Your task to perform on an android device: create a new album in the google photos Image 0: 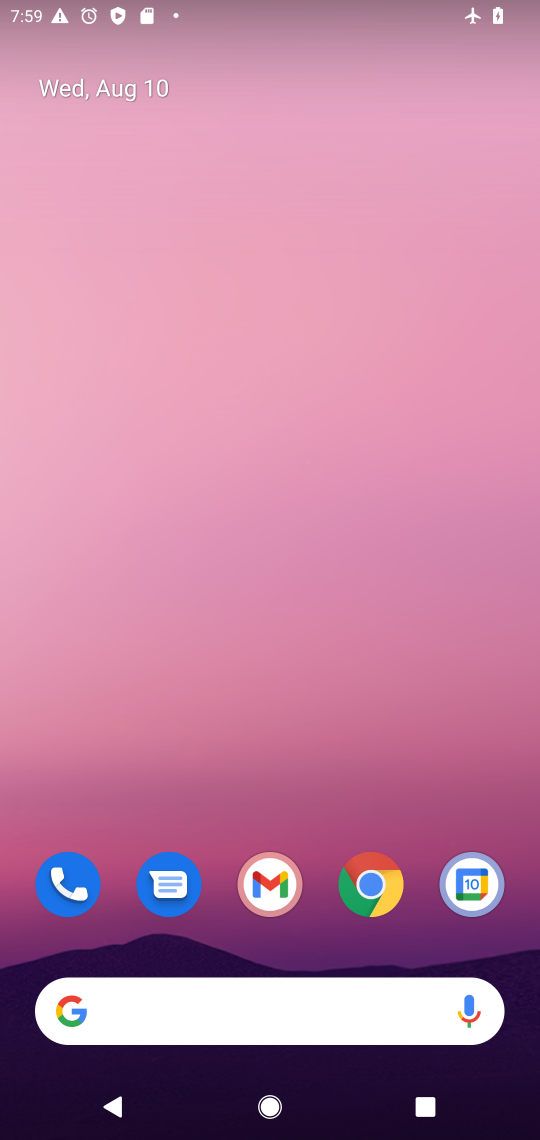
Step 0: drag from (43, 1051) to (246, 341)
Your task to perform on an android device: create a new album in the google photos Image 1: 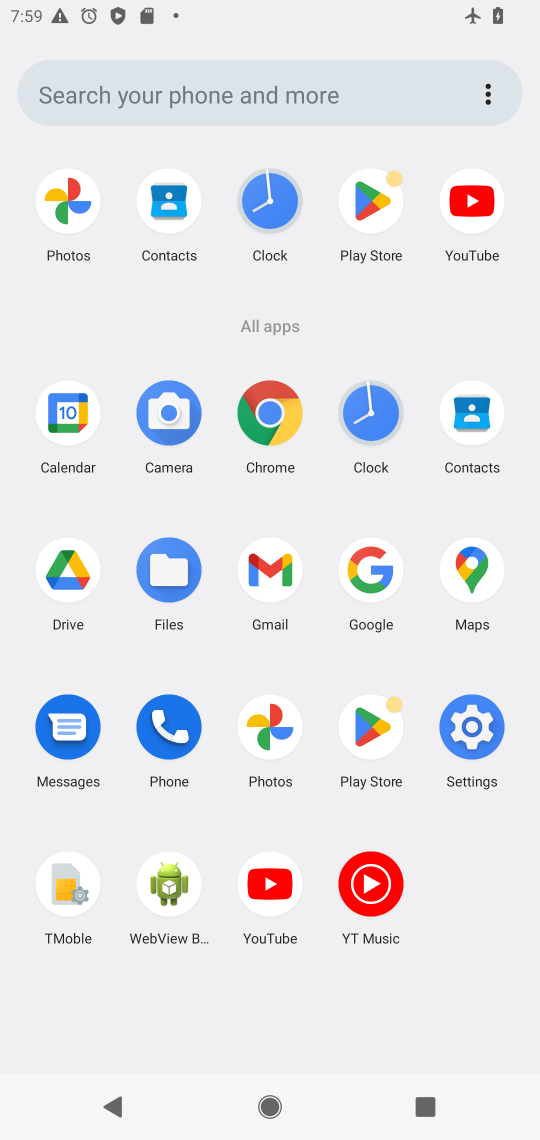
Step 1: click (268, 744)
Your task to perform on an android device: create a new album in the google photos Image 2: 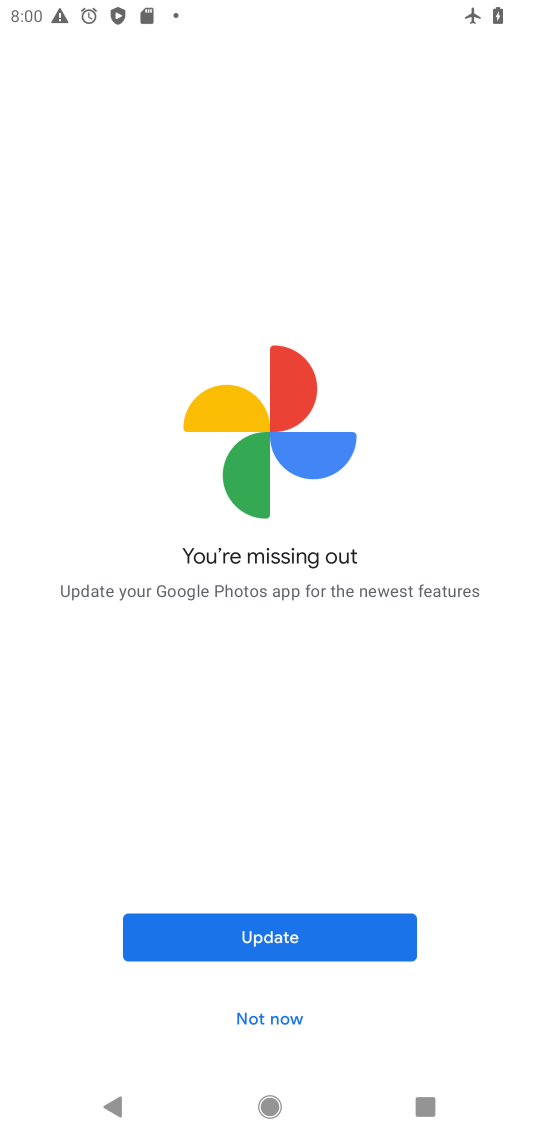
Step 2: click (271, 1009)
Your task to perform on an android device: create a new album in the google photos Image 3: 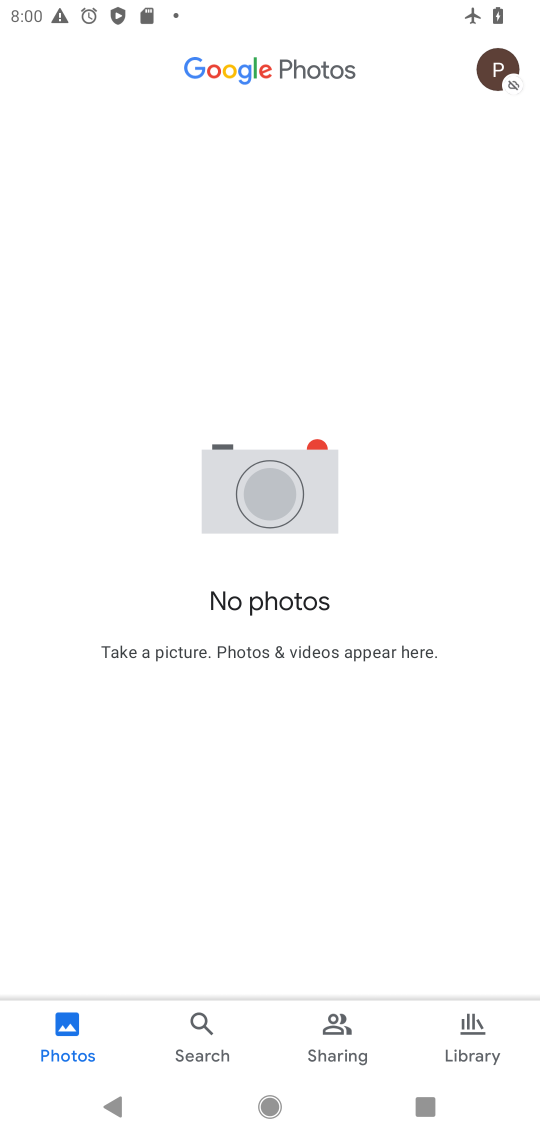
Step 3: task complete